Your task to perform on an android device: Go to display settings Image 0: 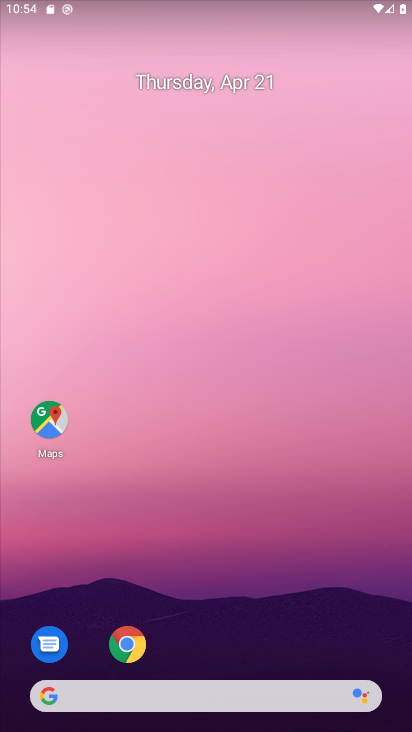
Step 0: drag from (235, 623) to (246, 55)
Your task to perform on an android device: Go to display settings Image 1: 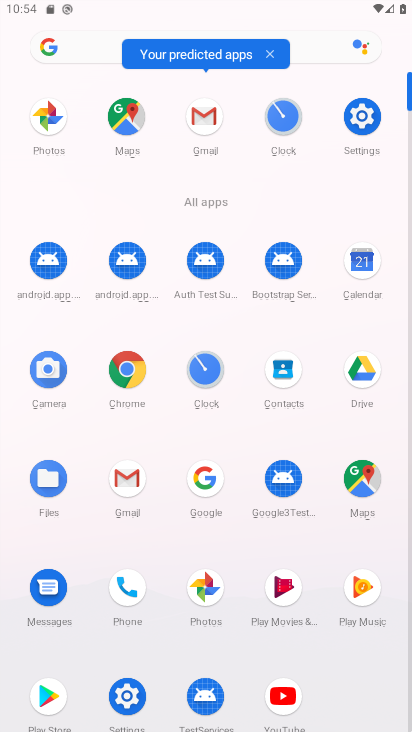
Step 1: click (370, 119)
Your task to perform on an android device: Go to display settings Image 2: 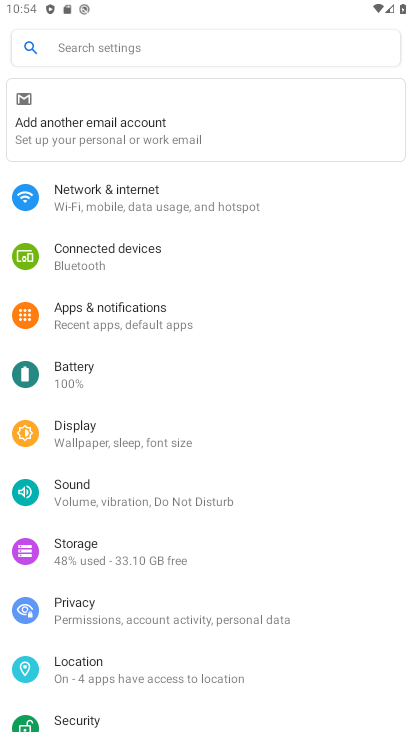
Step 2: click (246, 436)
Your task to perform on an android device: Go to display settings Image 3: 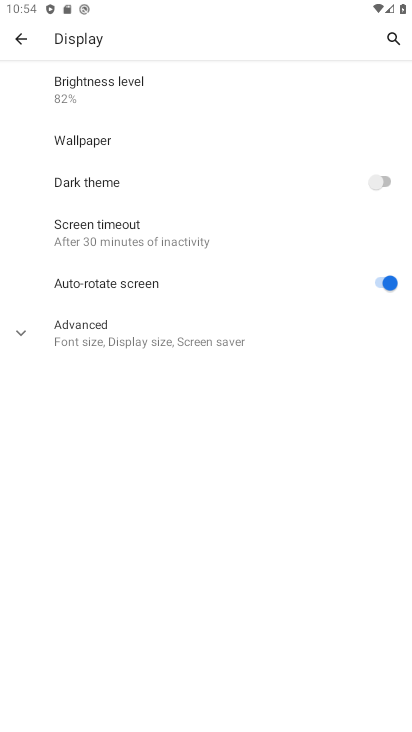
Step 3: task complete